Your task to perform on an android device: Open eBay Image 0: 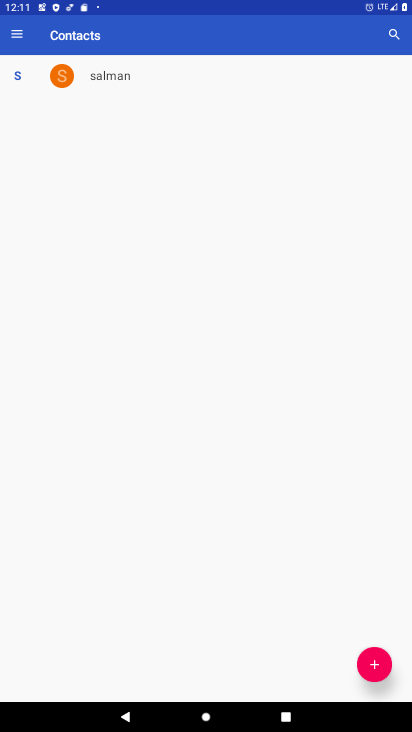
Step 0: press home button
Your task to perform on an android device: Open eBay Image 1: 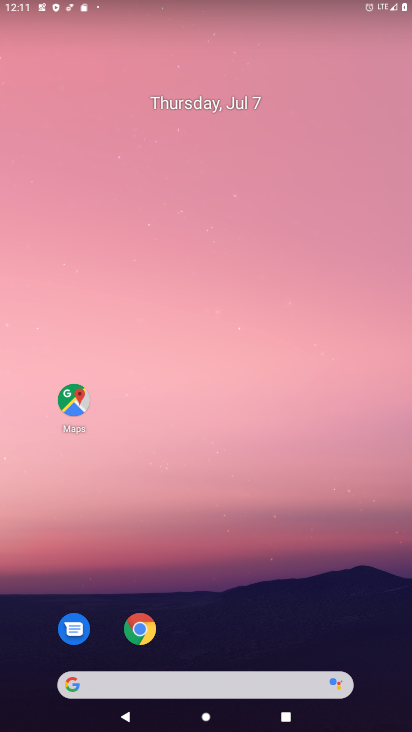
Step 1: click (142, 629)
Your task to perform on an android device: Open eBay Image 2: 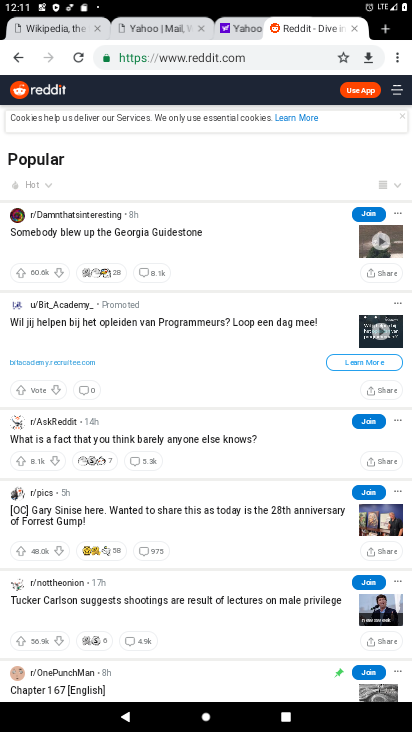
Step 2: click (383, 27)
Your task to perform on an android device: Open eBay Image 3: 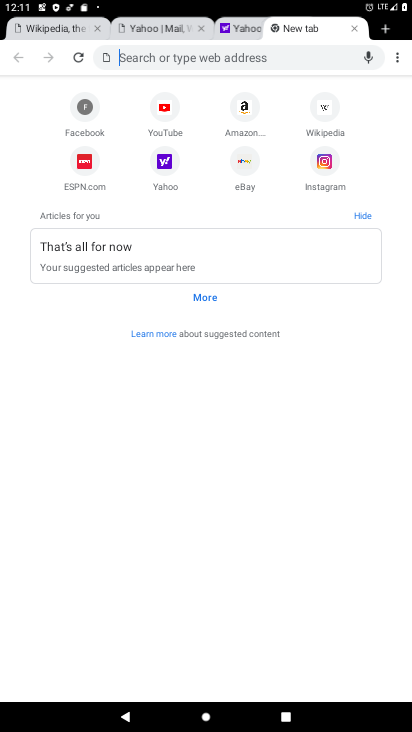
Step 3: click (243, 160)
Your task to perform on an android device: Open eBay Image 4: 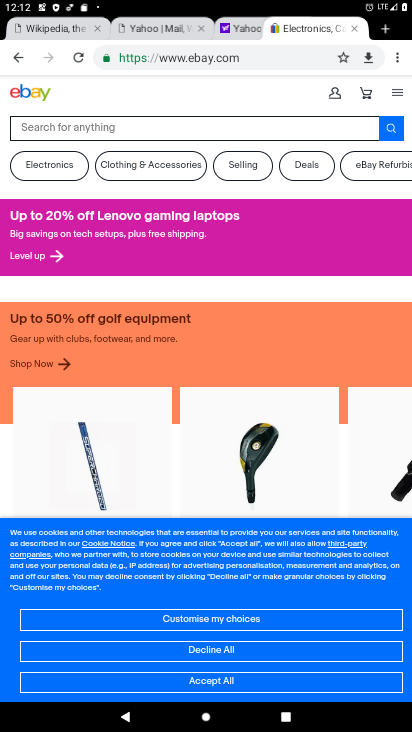
Step 4: click (228, 678)
Your task to perform on an android device: Open eBay Image 5: 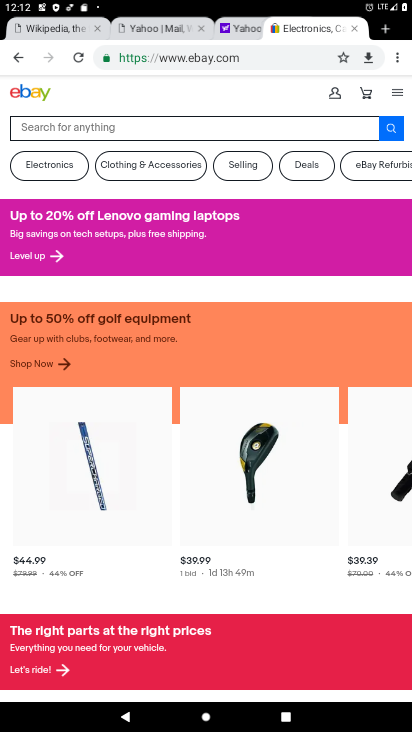
Step 5: task complete